Your task to perform on an android device: Open Youtube and go to "Your channel" Image 0: 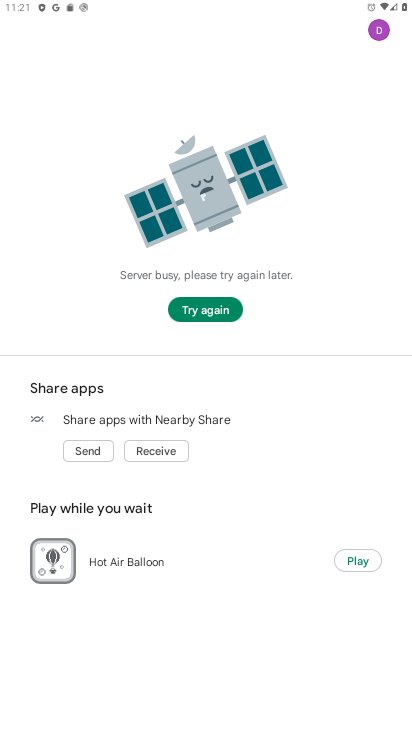
Step 0: press home button
Your task to perform on an android device: Open Youtube and go to "Your channel" Image 1: 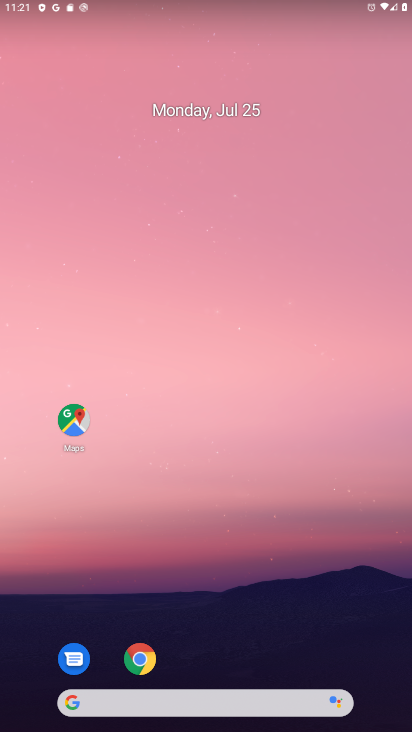
Step 1: drag from (203, 609) to (154, 63)
Your task to perform on an android device: Open Youtube and go to "Your channel" Image 2: 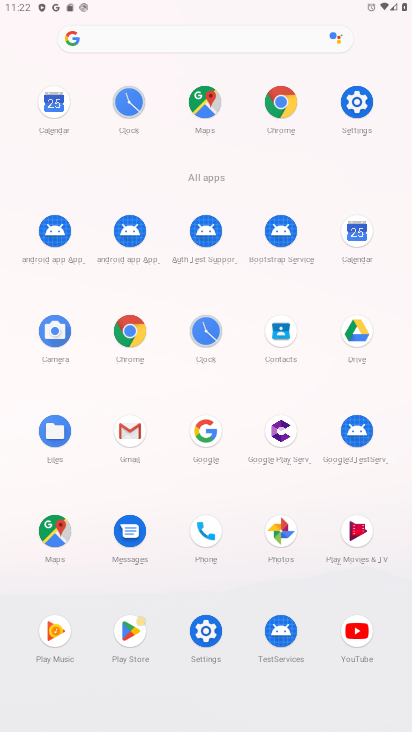
Step 2: click (364, 635)
Your task to perform on an android device: Open Youtube and go to "Your channel" Image 3: 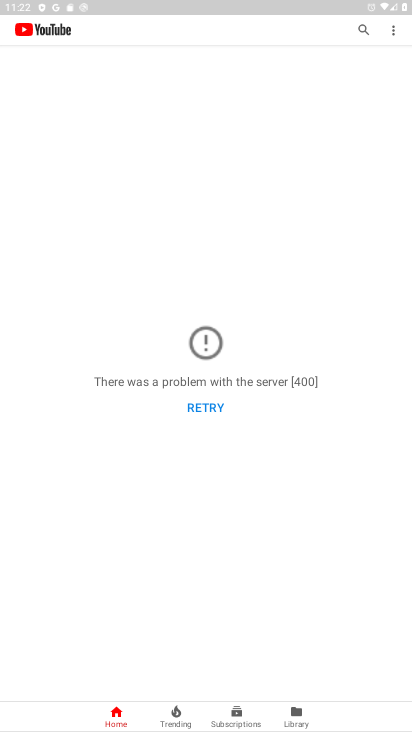
Step 3: click (393, 27)
Your task to perform on an android device: Open Youtube and go to "Your channel" Image 4: 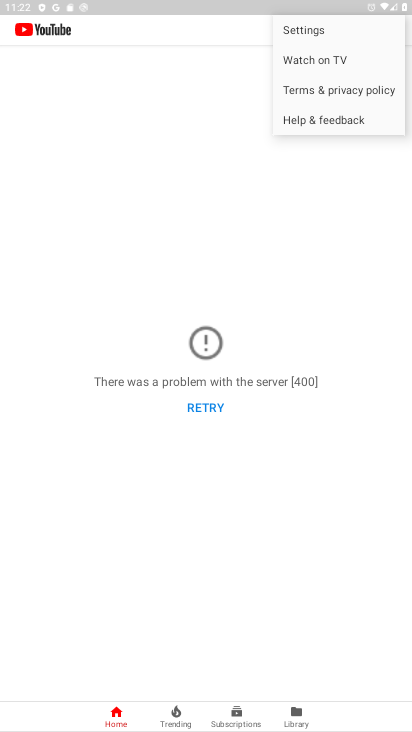
Step 4: click (357, 219)
Your task to perform on an android device: Open Youtube and go to "Your channel" Image 5: 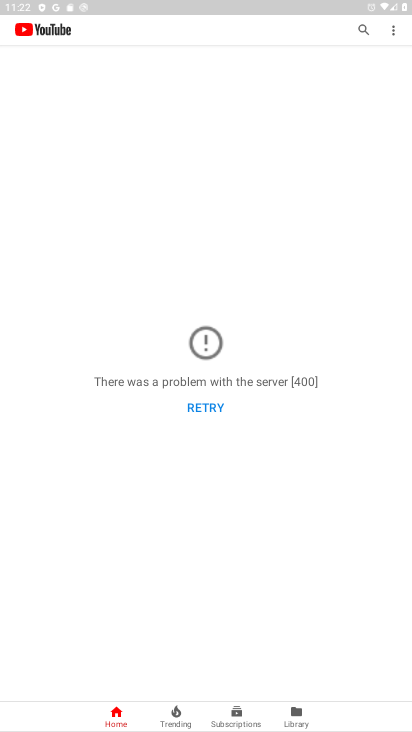
Step 5: click (292, 714)
Your task to perform on an android device: Open Youtube and go to "Your channel" Image 6: 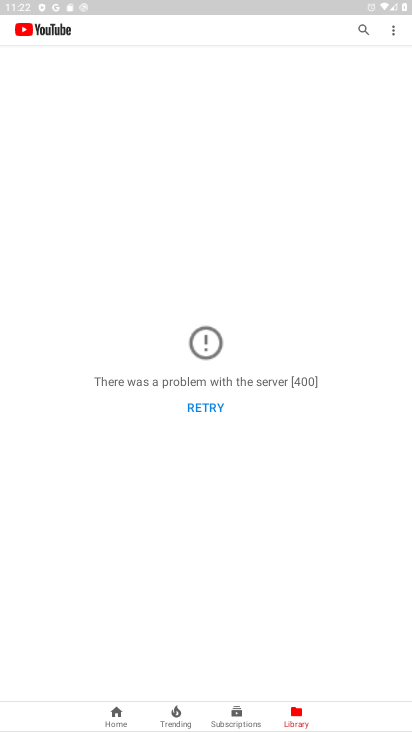
Step 6: click (207, 411)
Your task to perform on an android device: Open Youtube and go to "Your channel" Image 7: 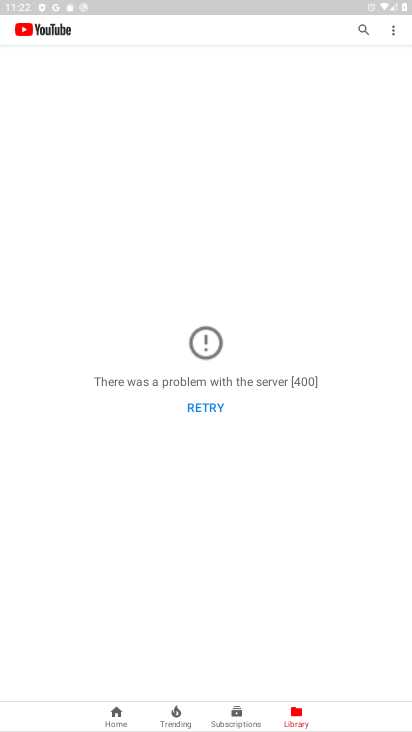
Step 7: click (202, 406)
Your task to perform on an android device: Open Youtube and go to "Your channel" Image 8: 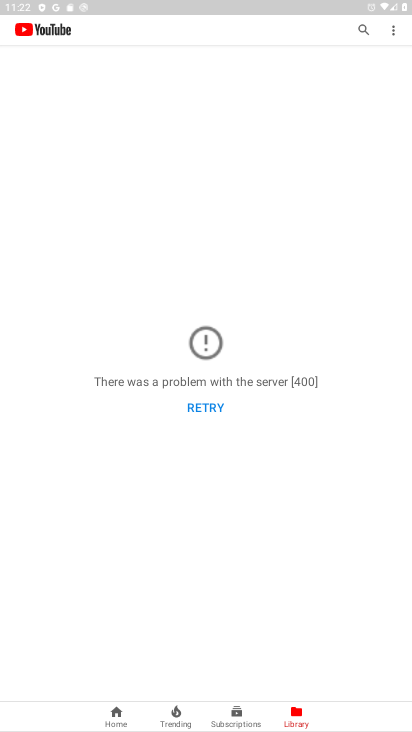
Step 8: click (195, 408)
Your task to perform on an android device: Open Youtube and go to "Your channel" Image 9: 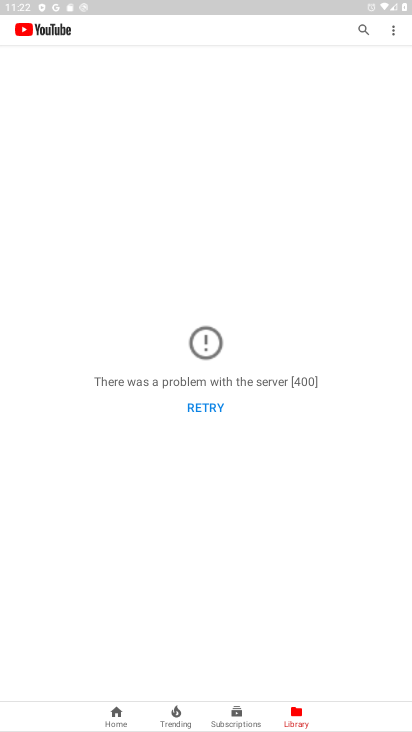
Step 9: click (201, 405)
Your task to perform on an android device: Open Youtube and go to "Your channel" Image 10: 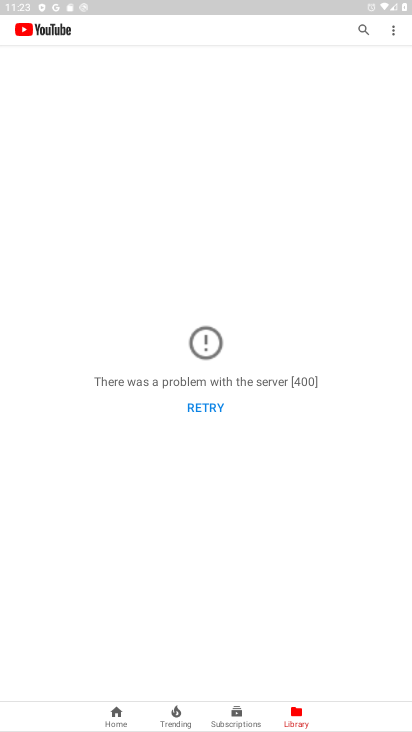
Step 10: task complete